Your task to perform on an android device: toggle priority inbox in the gmail app Image 0: 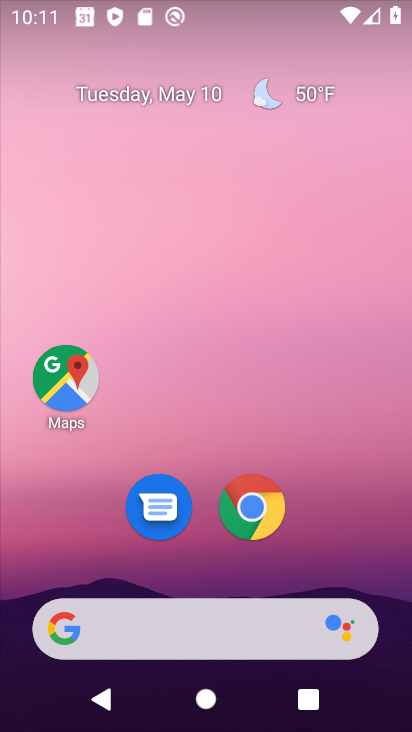
Step 0: drag from (334, 582) to (331, 203)
Your task to perform on an android device: toggle priority inbox in the gmail app Image 1: 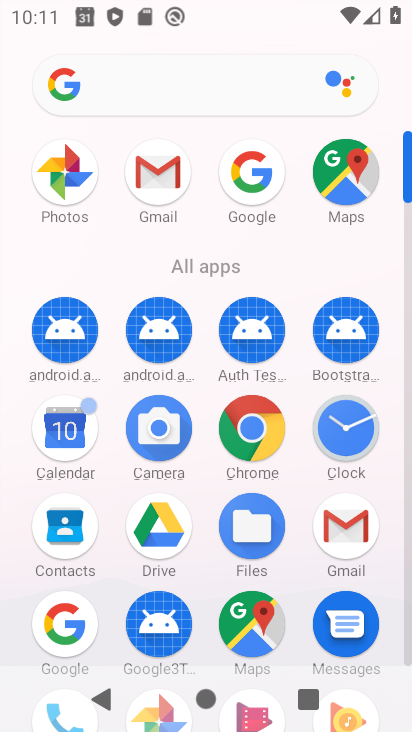
Step 1: click (351, 536)
Your task to perform on an android device: toggle priority inbox in the gmail app Image 2: 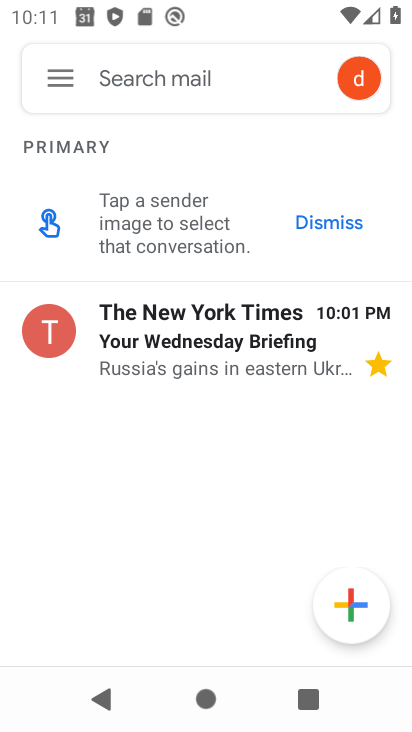
Step 2: click (60, 84)
Your task to perform on an android device: toggle priority inbox in the gmail app Image 3: 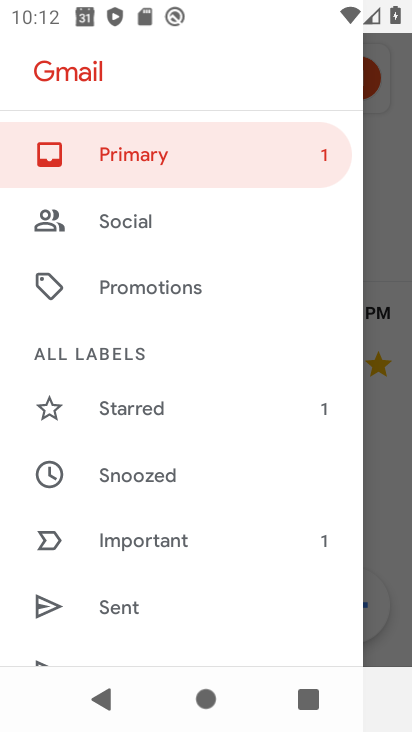
Step 3: drag from (222, 572) to (304, 158)
Your task to perform on an android device: toggle priority inbox in the gmail app Image 4: 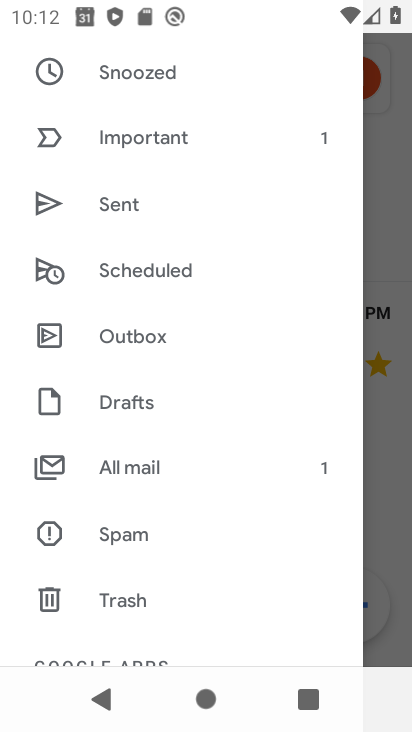
Step 4: drag from (167, 571) to (242, 212)
Your task to perform on an android device: toggle priority inbox in the gmail app Image 5: 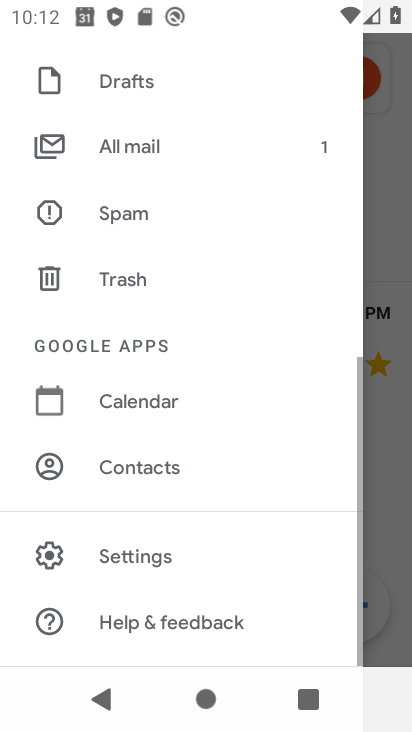
Step 5: click (155, 539)
Your task to perform on an android device: toggle priority inbox in the gmail app Image 6: 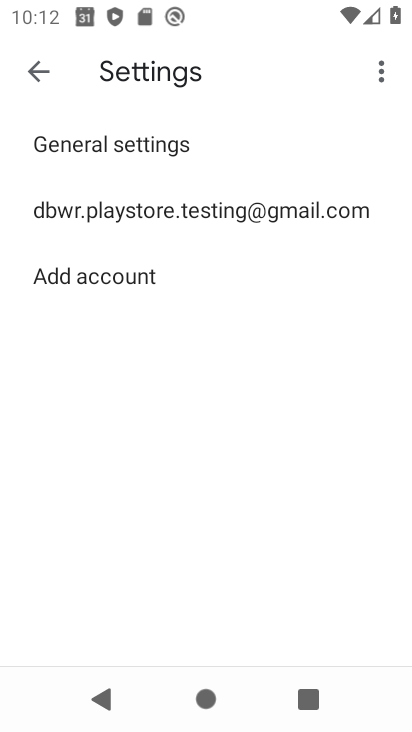
Step 6: click (199, 217)
Your task to perform on an android device: toggle priority inbox in the gmail app Image 7: 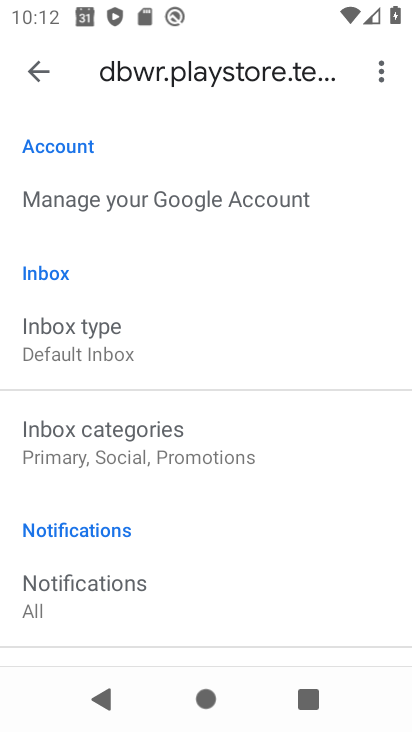
Step 7: click (220, 347)
Your task to perform on an android device: toggle priority inbox in the gmail app Image 8: 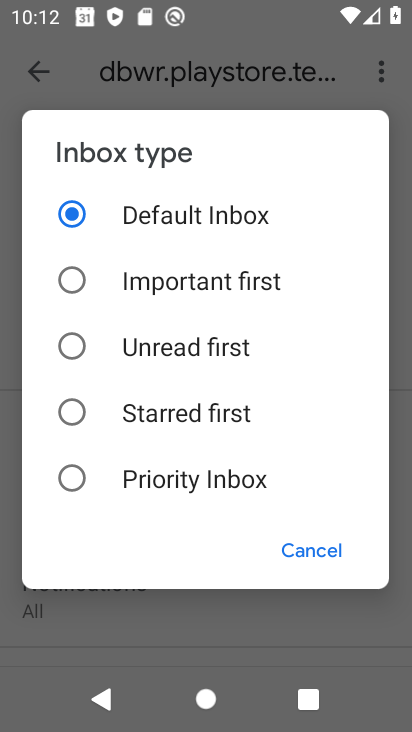
Step 8: click (162, 466)
Your task to perform on an android device: toggle priority inbox in the gmail app Image 9: 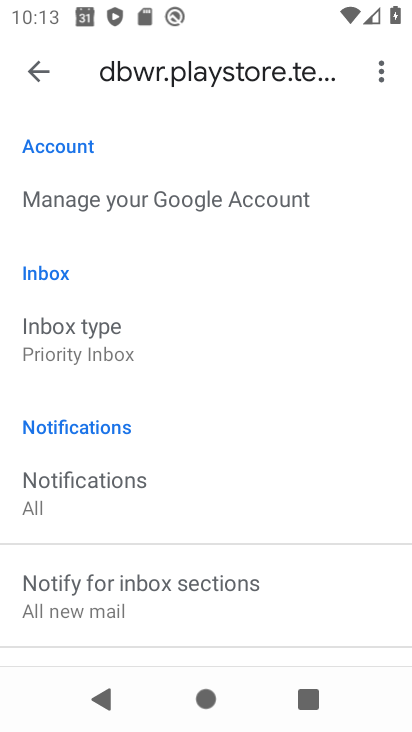
Step 9: task complete